Your task to perform on an android device: turn notification dots on Image 0: 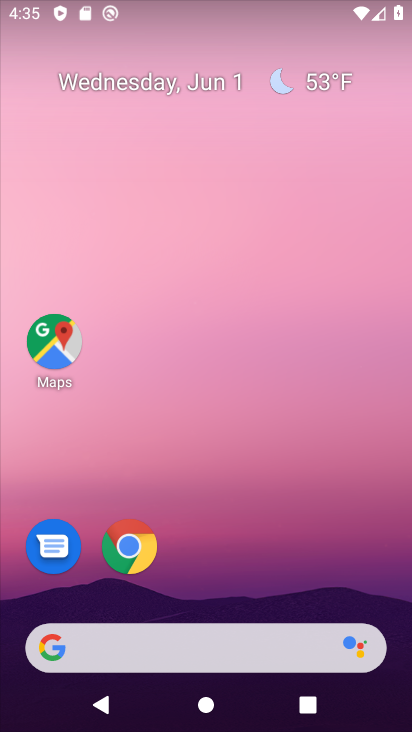
Step 0: drag from (287, 523) to (230, 15)
Your task to perform on an android device: turn notification dots on Image 1: 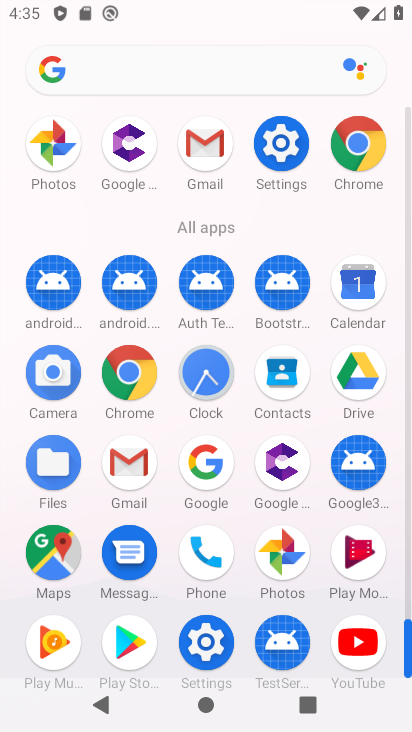
Step 1: drag from (12, 517) to (3, 217)
Your task to perform on an android device: turn notification dots on Image 2: 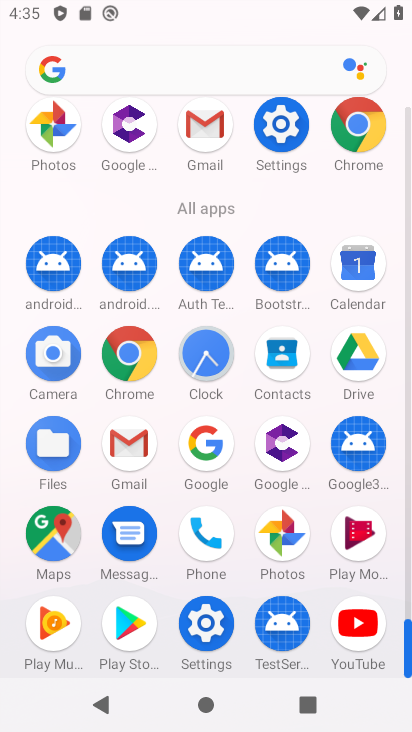
Step 2: click (204, 619)
Your task to perform on an android device: turn notification dots on Image 3: 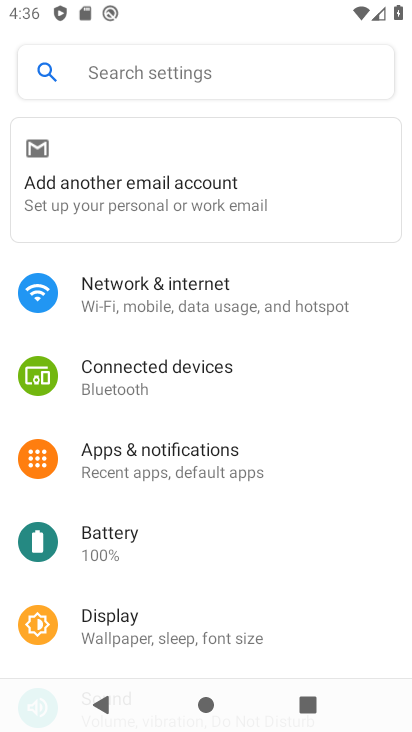
Step 3: drag from (281, 569) to (297, 231)
Your task to perform on an android device: turn notification dots on Image 4: 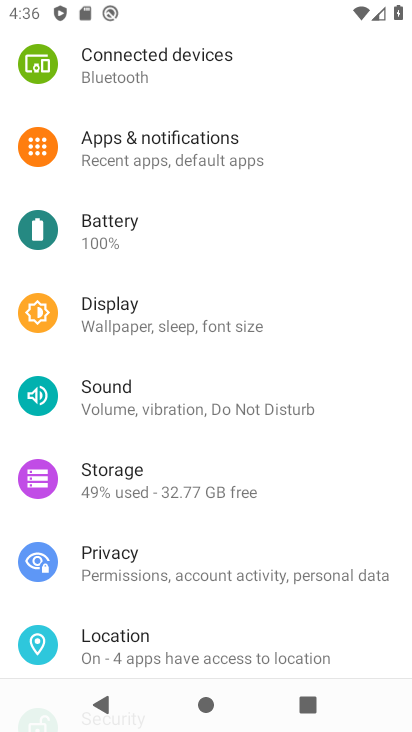
Step 4: click (181, 149)
Your task to perform on an android device: turn notification dots on Image 5: 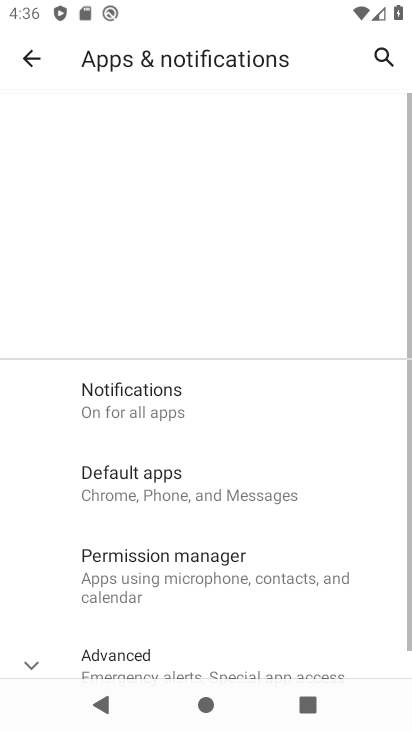
Step 5: click (39, 658)
Your task to perform on an android device: turn notification dots on Image 6: 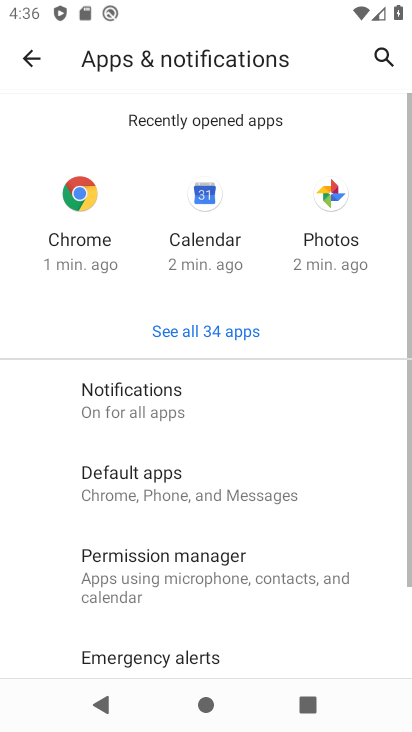
Step 6: drag from (251, 607) to (290, 265)
Your task to perform on an android device: turn notification dots on Image 7: 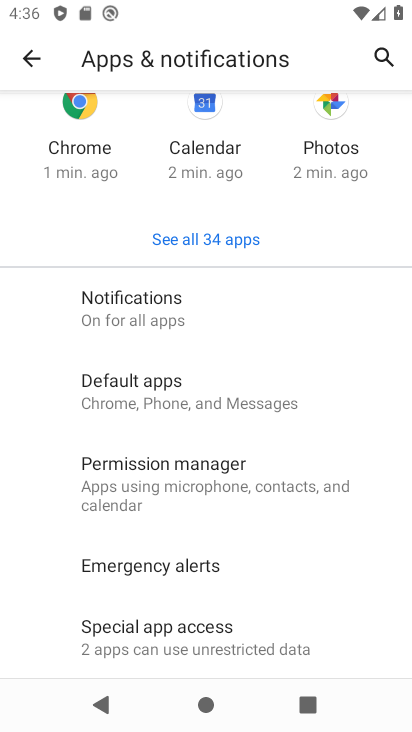
Step 7: click (164, 310)
Your task to perform on an android device: turn notification dots on Image 8: 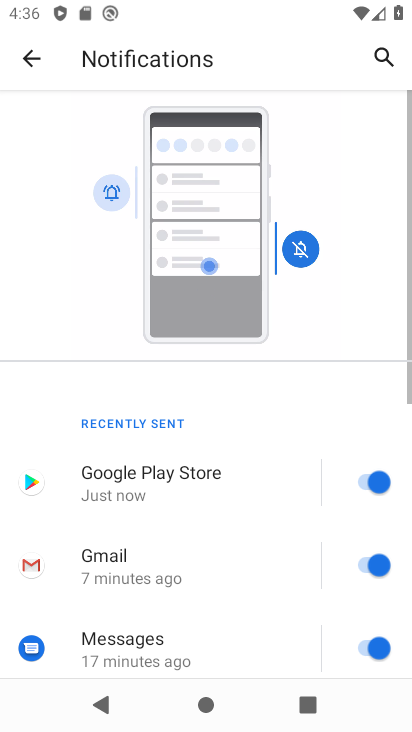
Step 8: drag from (207, 563) to (237, 137)
Your task to perform on an android device: turn notification dots on Image 9: 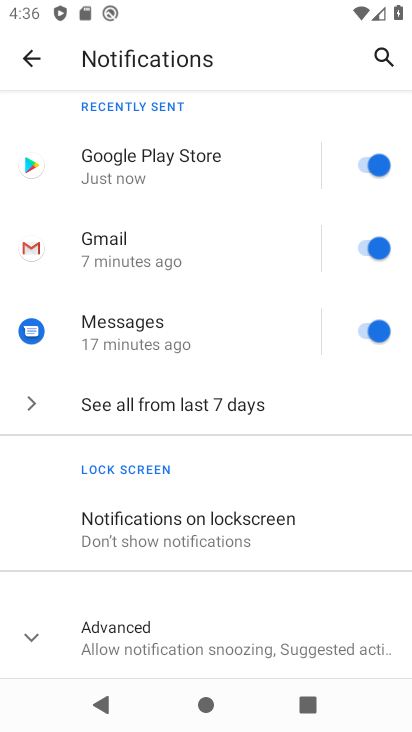
Step 9: drag from (245, 588) to (244, 166)
Your task to perform on an android device: turn notification dots on Image 10: 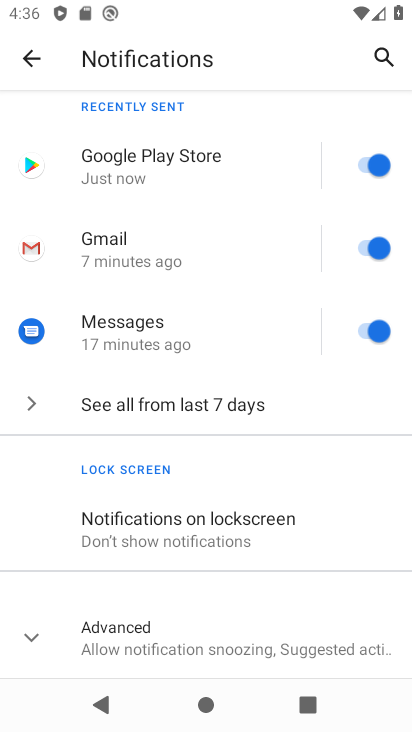
Step 10: click (75, 631)
Your task to perform on an android device: turn notification dots on Image 11: 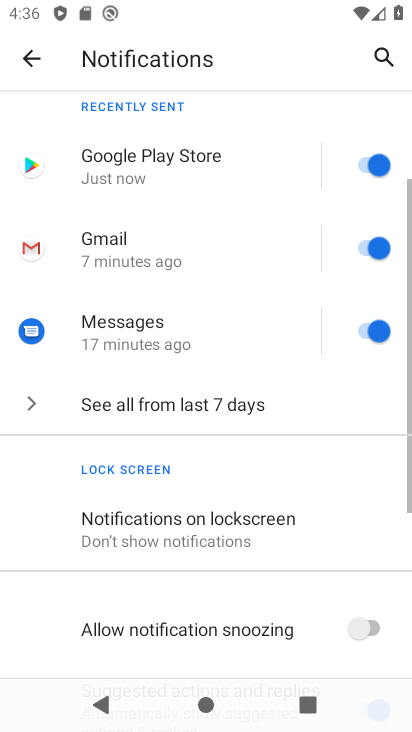
Step 11: drag from (202, 589) to (215, 157)
Your task to perform on an android device: turn notification dots on Image 12: 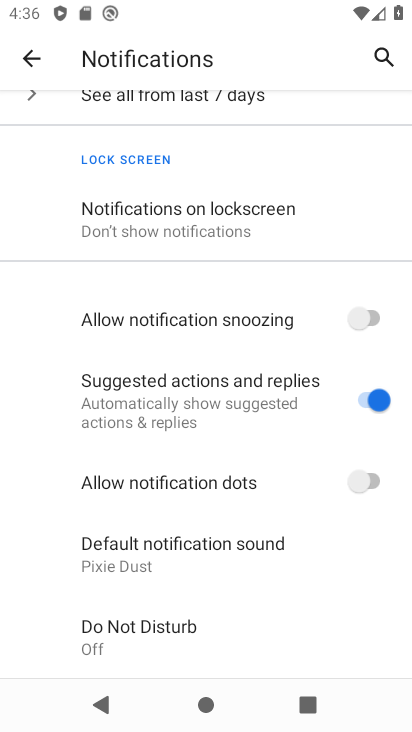
Step 12: drag from (204, 574) to (210, 209)
Your task to perform on an android device: turn notification dots on Image 13: 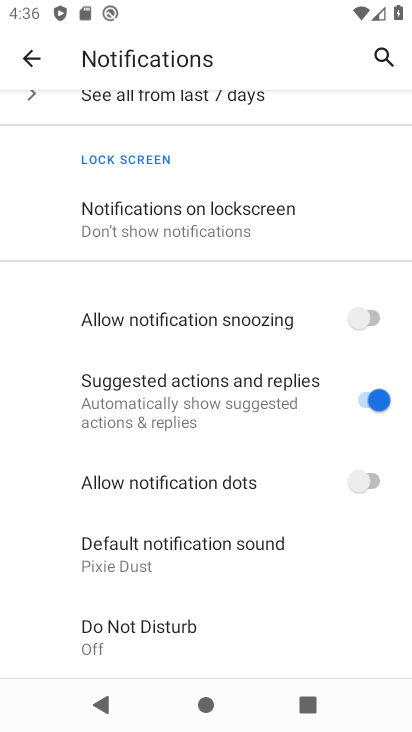
Step 13: click (359, 486)
Your task to perform on an android device: turn notification dots on Image 14: 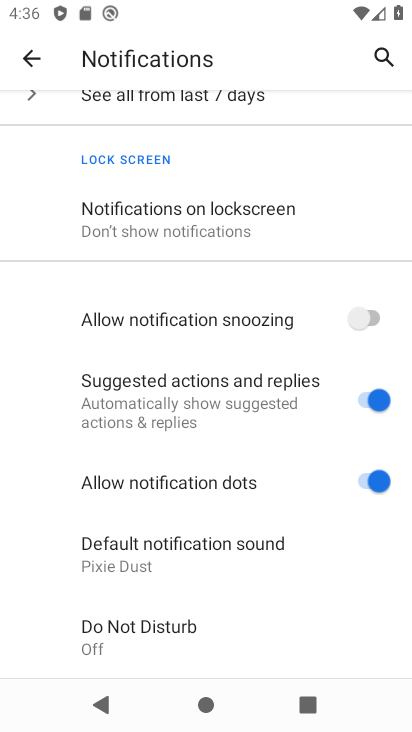
Step 14: task complete